Your task to perform on an android device: Open Youtube and go to the subscriptions tab Image 0: 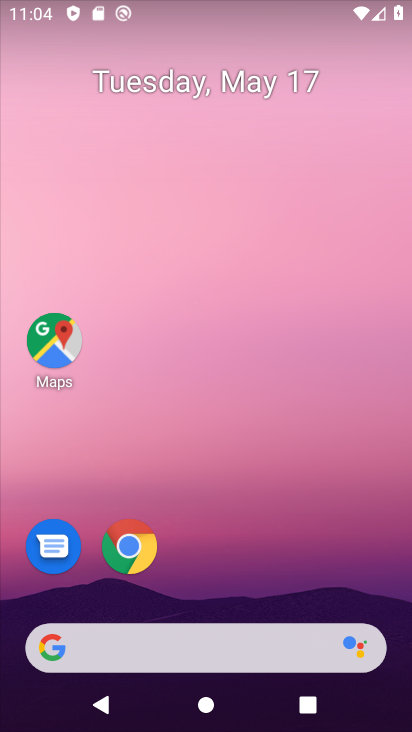
Step 0: drag from (241, 600) to (131, 151)
Your task to perform on an android device: Open Youtube and go to the subscriptions tab Image 1: 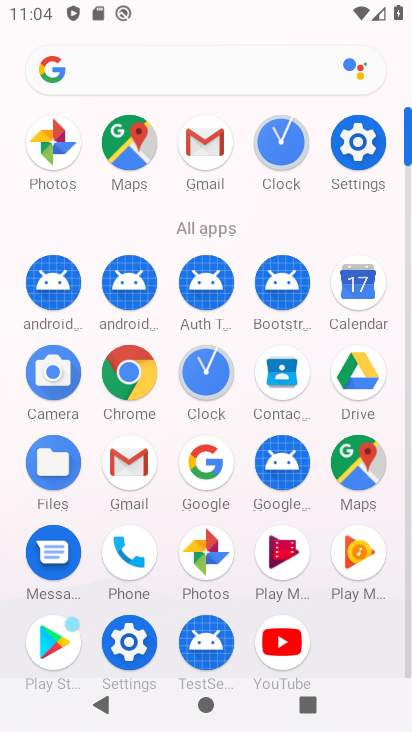
Step 1: click (297, 654)
Your task to perform on an android device: Open Youtube and go to the subscriptions tab Image 2: 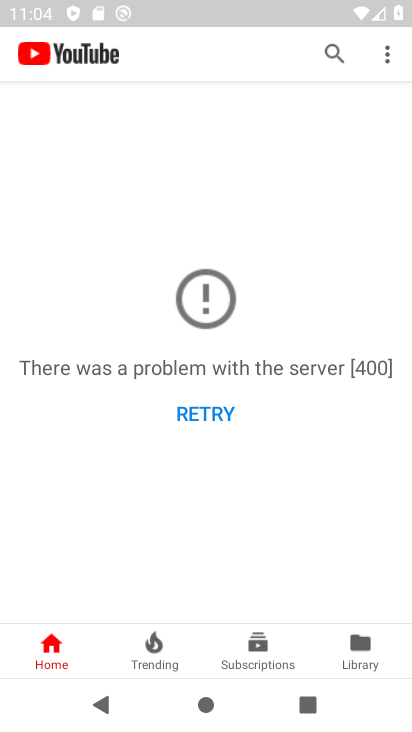
Step 2: click (277, 661)
Your task to perform on an android device: Open Youtube and go to the subscriptions tab Image 3: 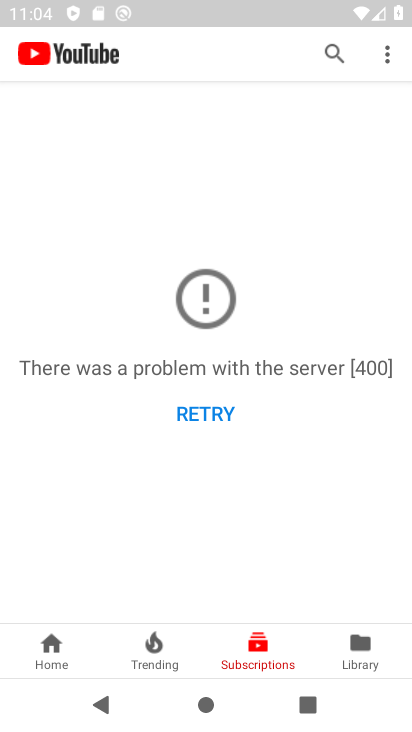
Step 3: task complete